Your task to perform on an android device: Open Google Chrome and click the shortcut for Amazon.com Image 0: 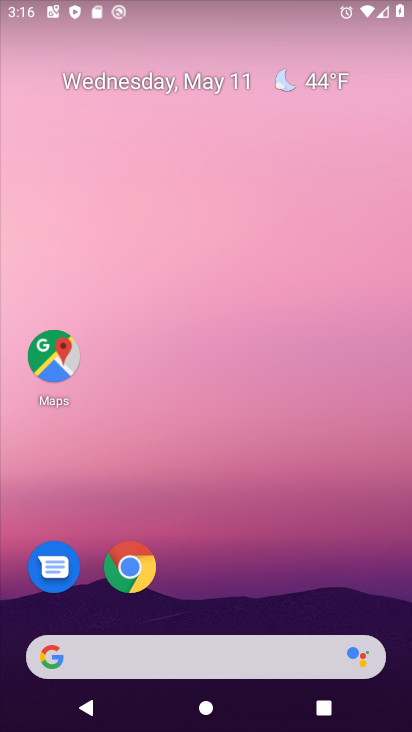
Step 0: drag from (212, 501) to (170, 16)
Your task to perform on an android device: Open Google Chrome and click the shortcut for Amazon.com Image 1: 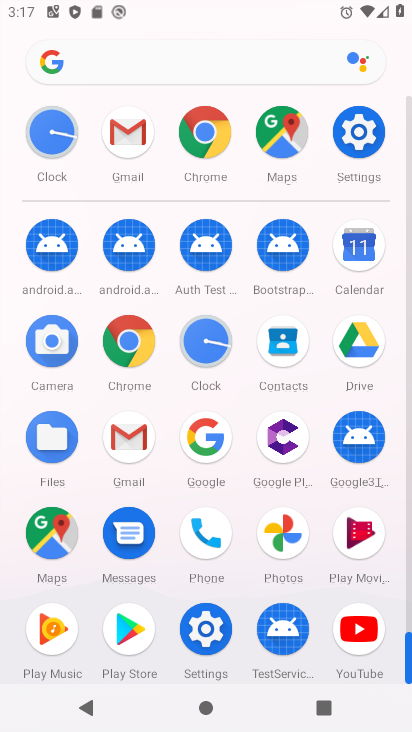
Step 1: drag from (13, 514) to (30, 181)
Your task to perform on an android device: Open Google Chrome and click the shortcut for Amazon.com Image 2: 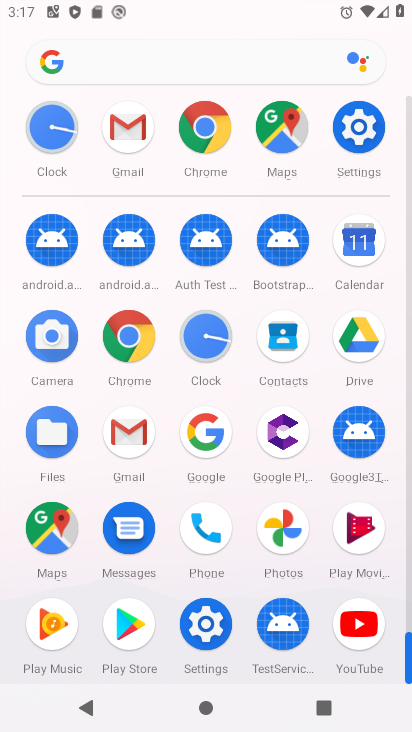
Step 2: click (134, 323)
Your task to perform on an android device: Open Google Chrome and click the shortcut for Amazon.com Image 3: 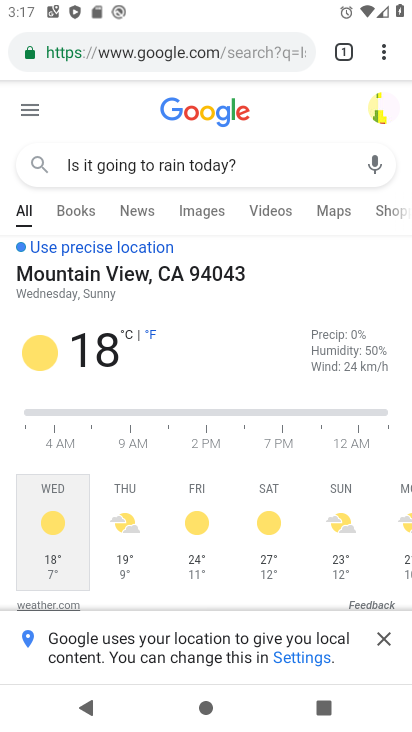
Step 3: click (200, 51)
Your task to perform on an android device: Open Google Chrome and click the shortcut for Amazon.com Image 4: 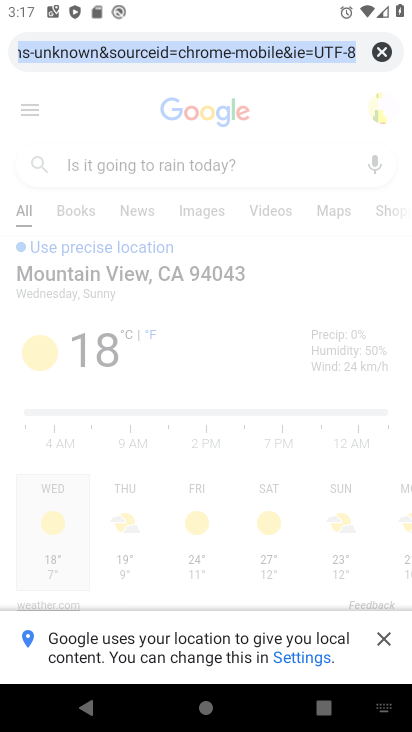
Step 4: click (381, 51)
Your task to perform on an android device: Open Google Chrome and click the shortcut for Amazon.com Image 5: 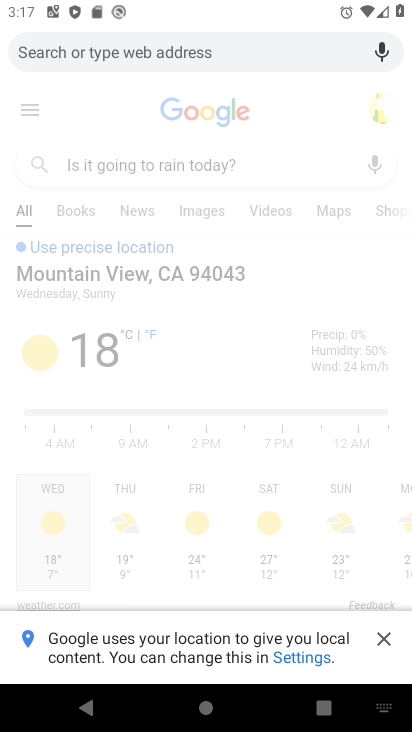
Step 5: type "Amazon.com"
Your task to perform on an android device: Open Google Chrome and click the shortcut for Amazon.com Image 6: 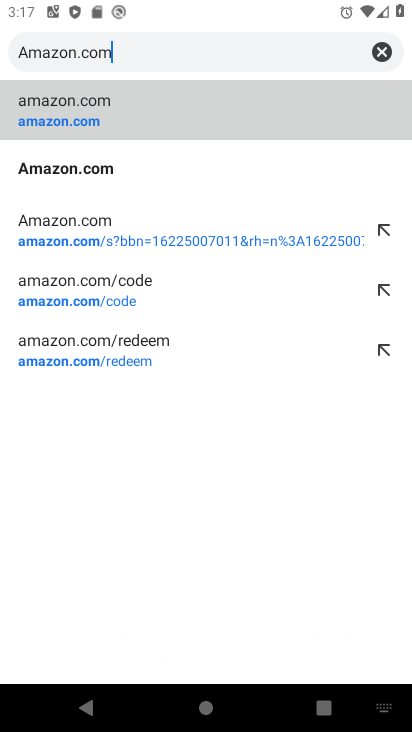
Step 6: click (99, 107)
Your task to perform on an android device: Open Google Chrome and click the shortcut for Amazon.com Image 7: 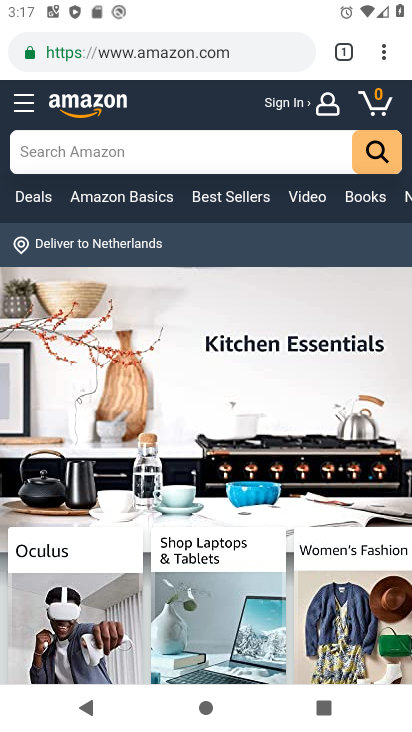
Step 7: drag from (386, 43) to (225, 589)
Your task to perform on an android device: Open Google Chrome and click the shortcut for Amazon.com Image 8: 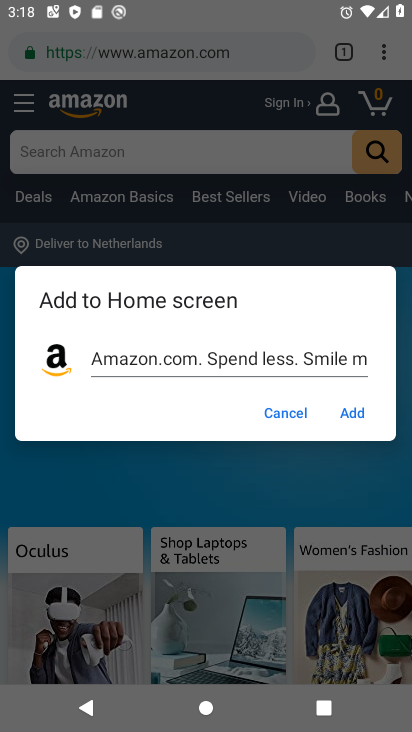
Step 8: click (355, 413)
Your task to perform on an android device: Open Google Chrome and click the shortcut for Amazon.com Image 9: 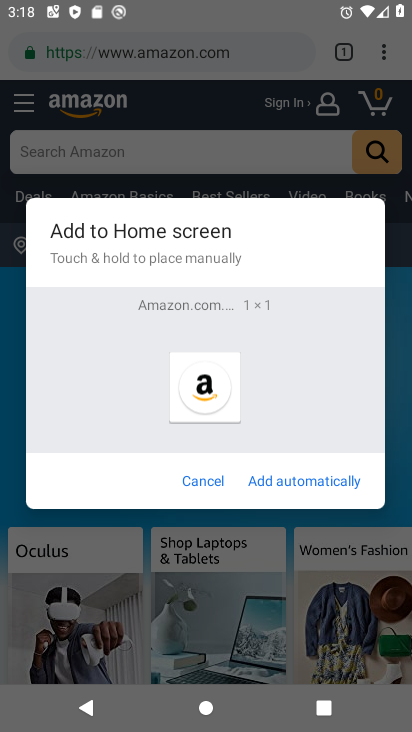
Step 9: click (302, 480)
Your task to perform on an android device: Open Google Chrome and click the shortcut for Amazon.com Image 10: 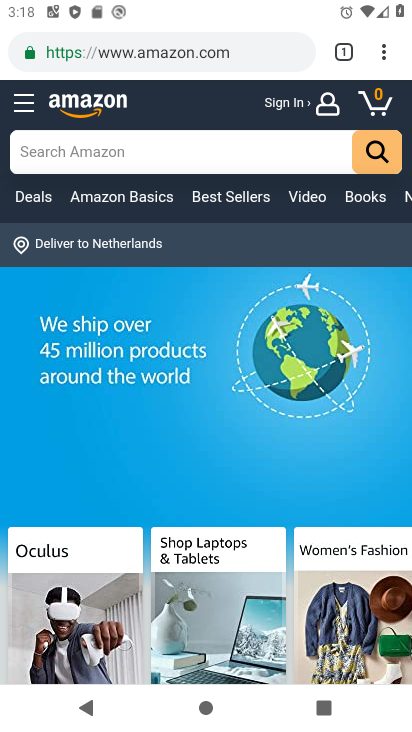
Step 10: task complete